Your task to perform on an android device: What's the weather going to be this weekend? Image 0: 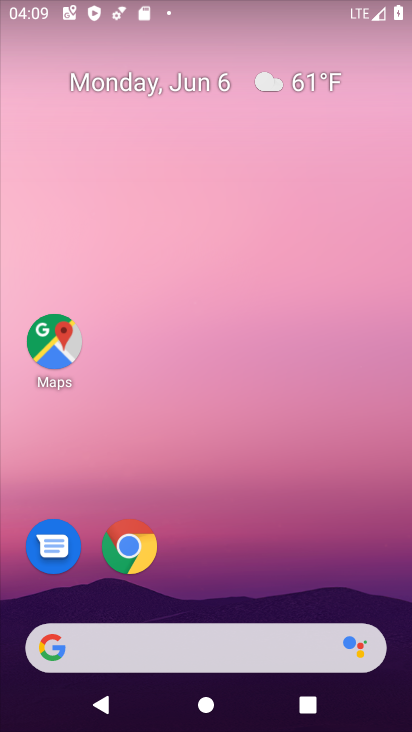
Step 0: press enter
Your task to perform on an android device: What's the weather going to be this weekend? Image 1: 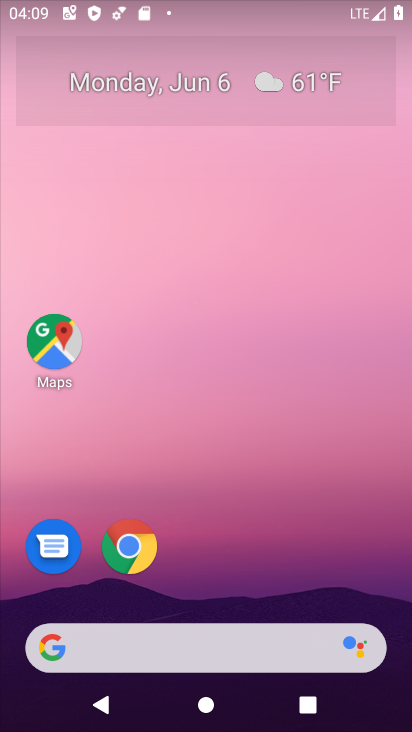
Step 1: click (54, 644)
Your task to perform on an android device: What's the weather going to be this weekend? Image 2: 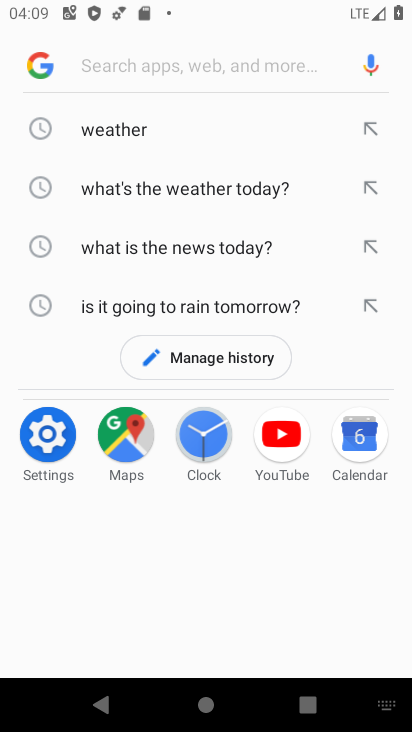
Step 2: type "weather this weekend"
Your task to perform on an android device: What's the weather going to be this weekend? Image 3: 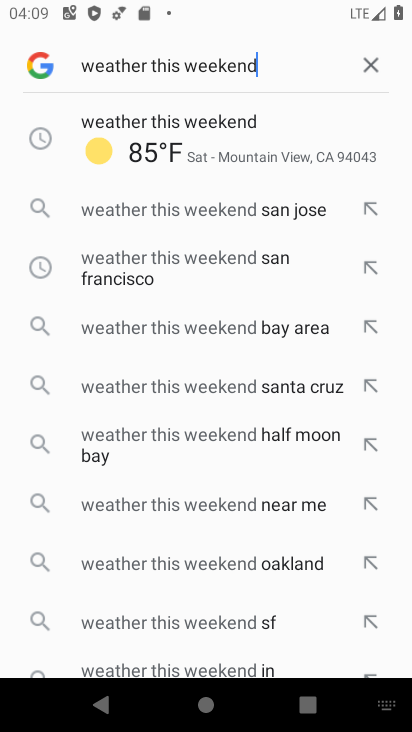
Step 3: click (182, 121)
Your task to perform on an android device: What's the weather going to be this weekend? Image 4: 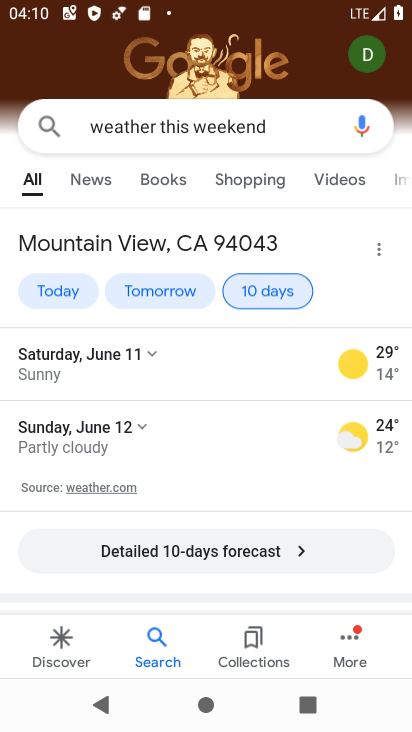
Step 4: task complete